Your task to perform on an android device: Open ESPN.com Image 0: 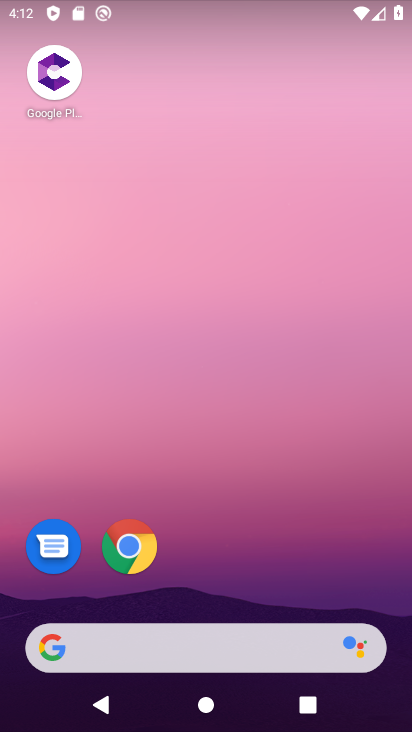
Step 0: press home button
Your task to perform on an android device: Open ESPN.com Image 1: 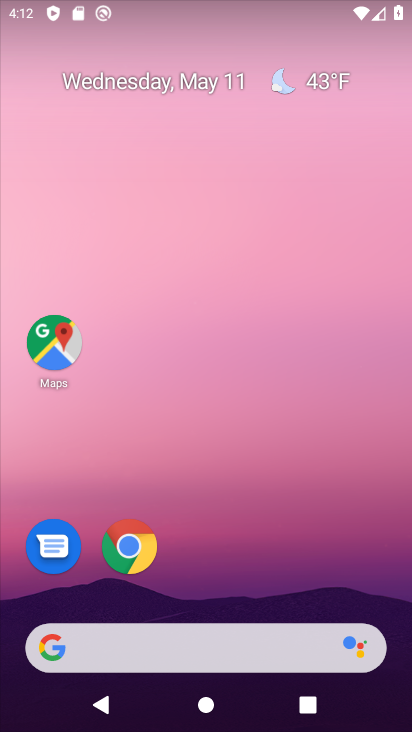
Step 1: drag from (206, 628) to (187, 141)
Your task to perform on an android device: Open ESPN.com Image 2: 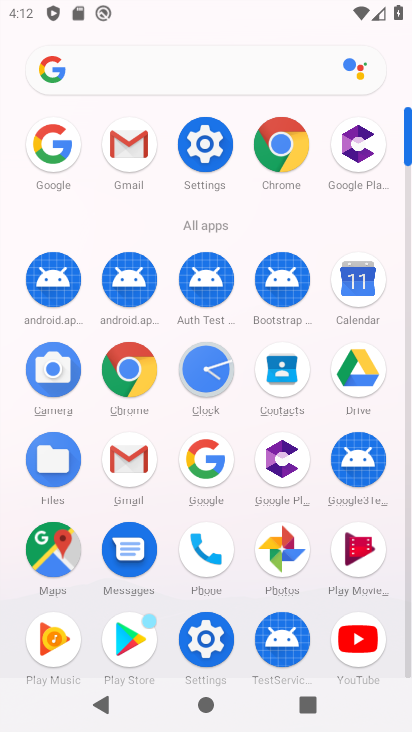
Step 2: click (277, 148)
Your task to perform on an android device: Open ESPN.com Image 3: 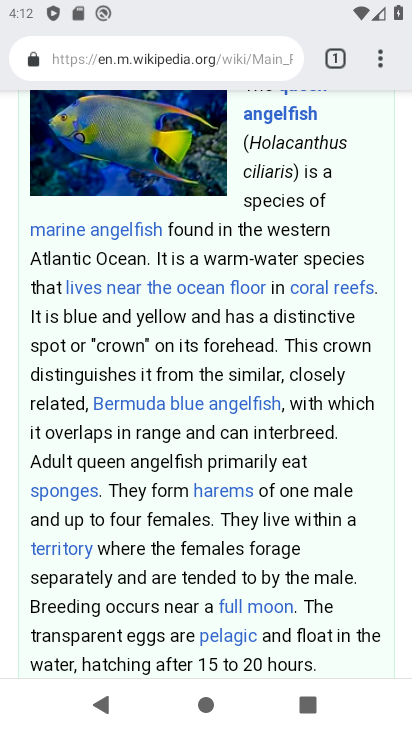
Step 3: click (332, 58)
Your task to perform on an android device: Open ESPN.com Image 4: 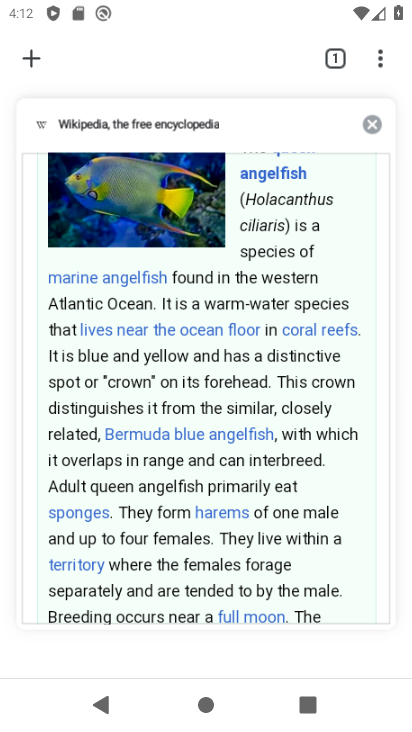
Step 4: click (367, 123)
Your task to perform on an android device: Open ESPN.com Image 5: 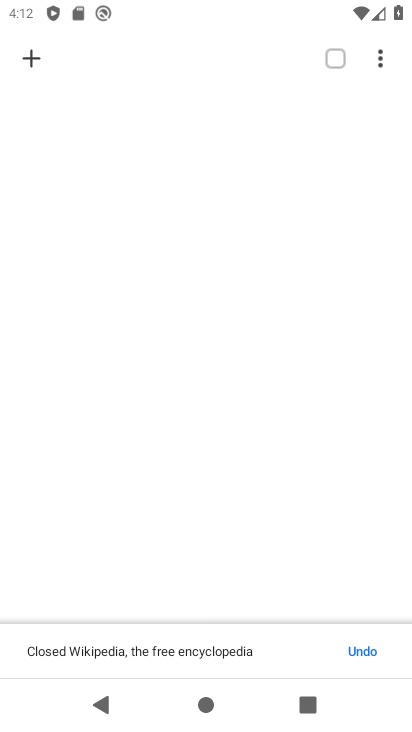
Step 5: click (29, 56)
Your task to perform on an android device: Open ESPN.com Image 6: 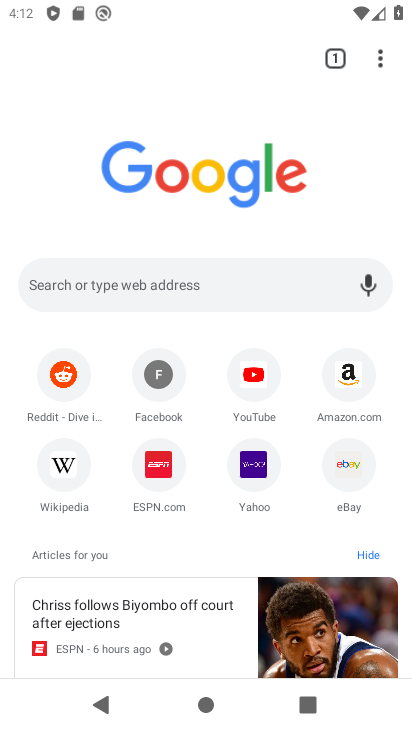
Step 6: click (153, 474)
Your task to perform on an android device: Open ESPN.com Image 7: 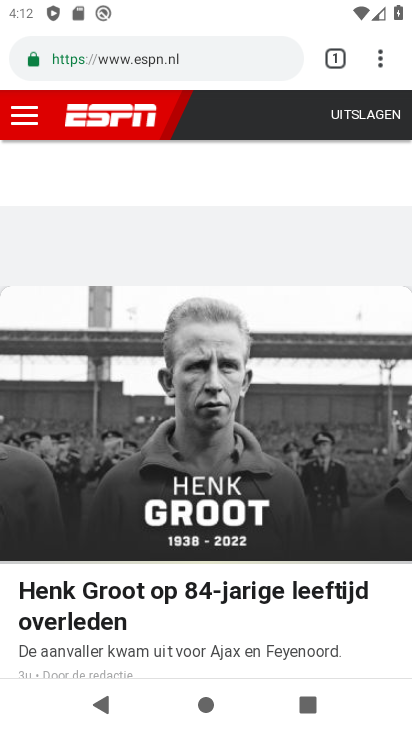
Step 7: task complete